Your task to perform on an android device: Is it going to rain today? Image 0: 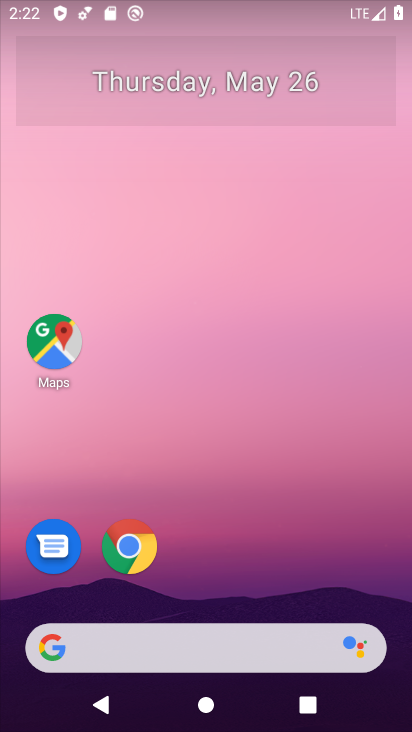
Step 0: drag from (274, 381) to (275, 59)
Your task to perform on an android device: Is it going to rain today? Image 1: 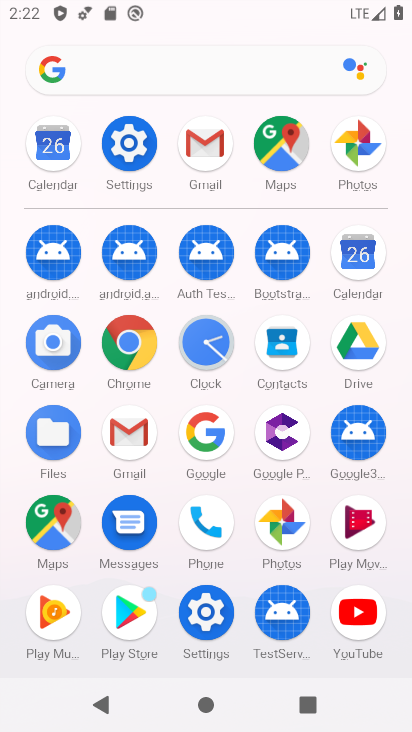
Step 1: click (213, 439)
Your task to perform on an android device: Is it going to rain today? Image 2: 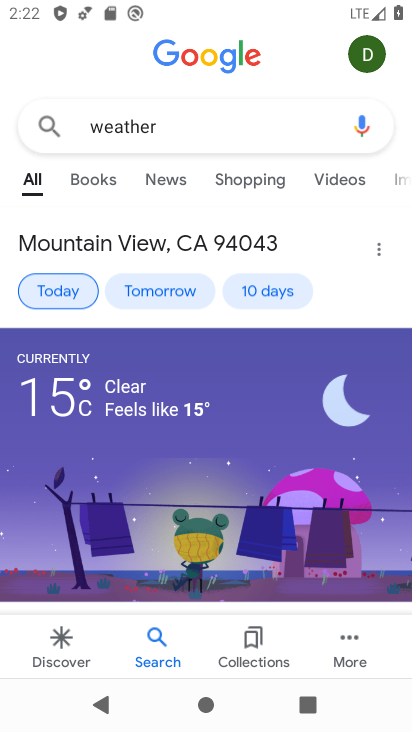
Step 2: task complete